Your task to perform on an android device: Check the weather Image 0: 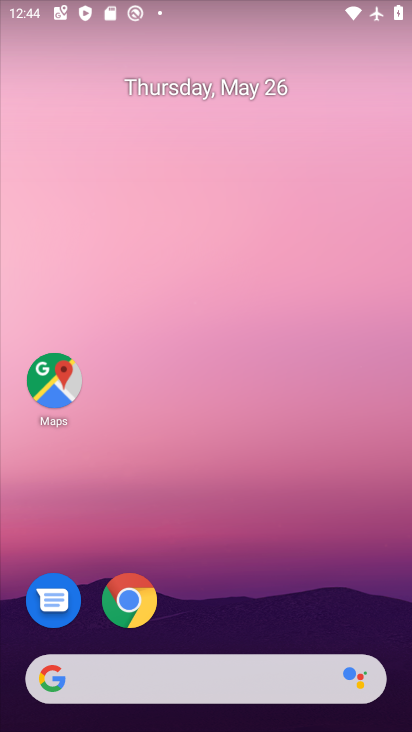
Step 0: drag from (202, 496) to (256, 29)
Your task to perform on an android device: Check the weather Image 1: 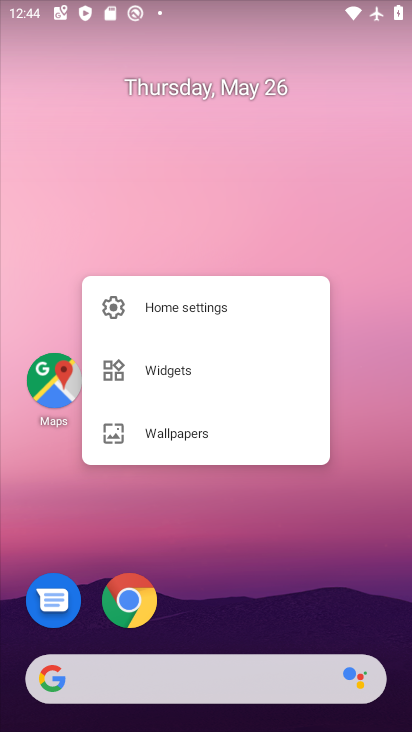
Step 1: click (288, 199)
Your task to perform on an android device: Check the weather Image 2: 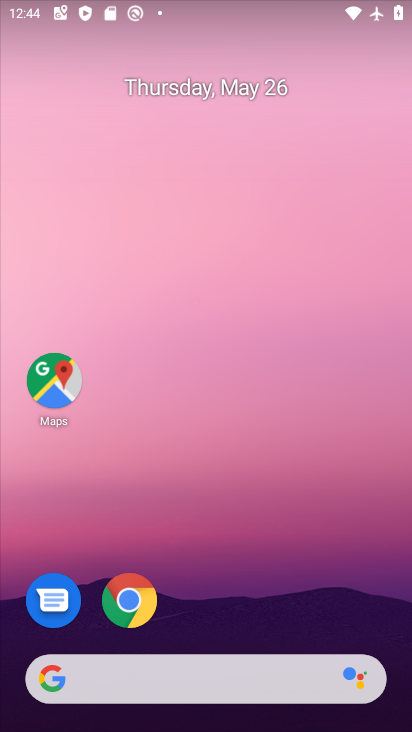
Step 2: click (295, 194)
Your task to perform on an android device: Check the weather Image 3: 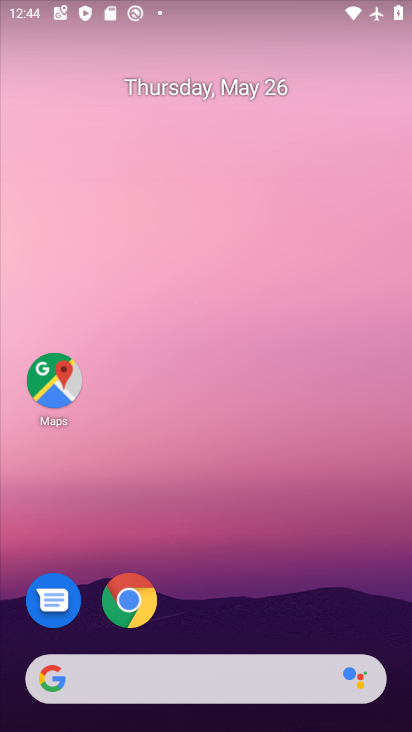
Step 3: drag from (208, 565) to (263, 174)
Your task to perform on an android device: Check the weather Image 4: 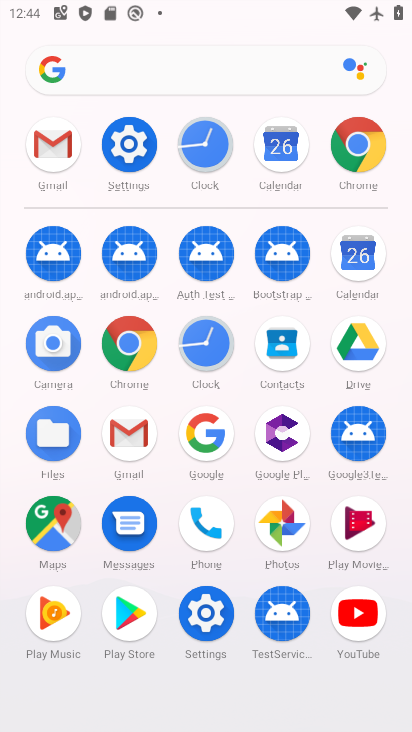
Step 4: click (120, 379)
Your task to perform on an android device: Check the weather Image 5: 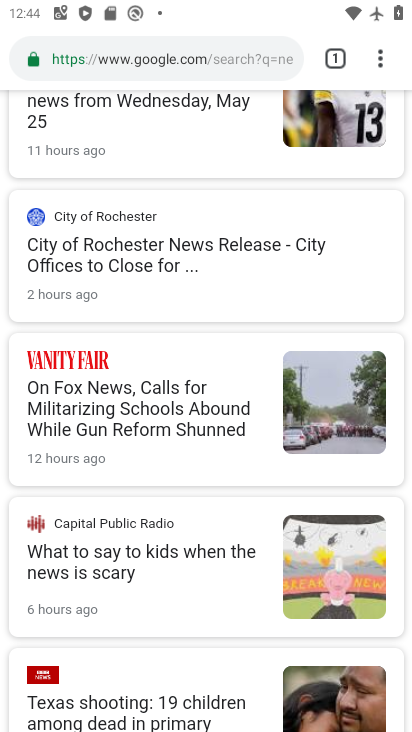
Step 5: click (154, 57)
Your task to perform on an android device: Check the weather Image 6: 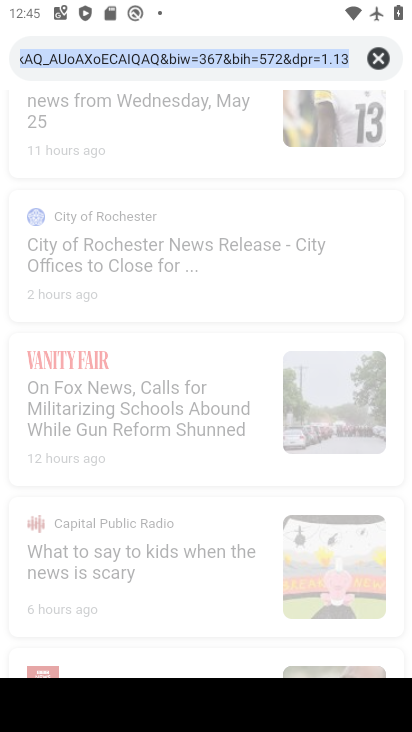
Step 6: type "weather"
Your task to perform on an android device: Check the weather Image 7: 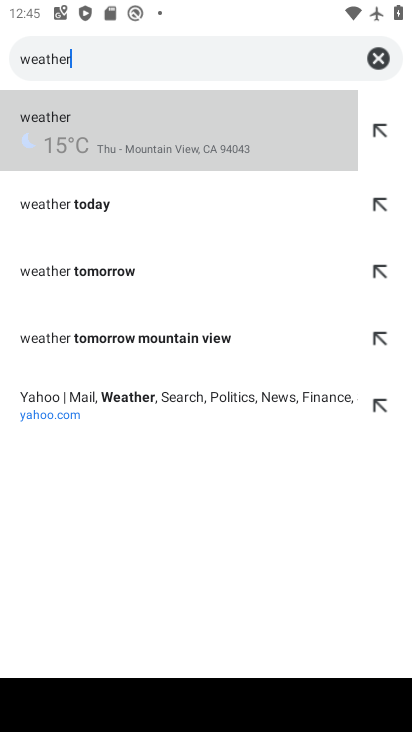
Step 7: click (155, 132)
Your task to perform on an android device: Check the weather Image 8: 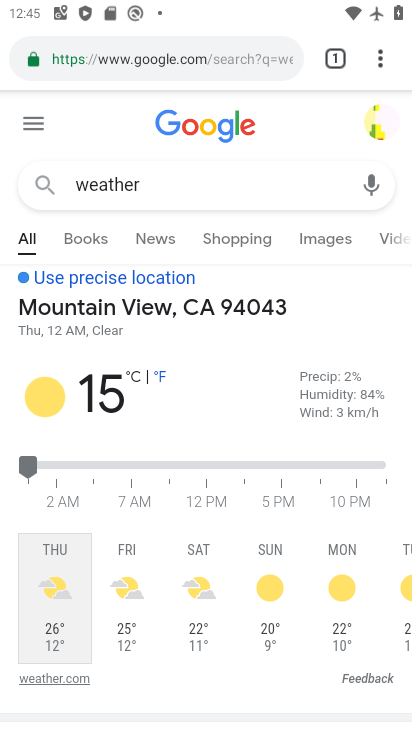
Step 8: task complete